Your task to perform on an android device: Open privacy settings Image 0: 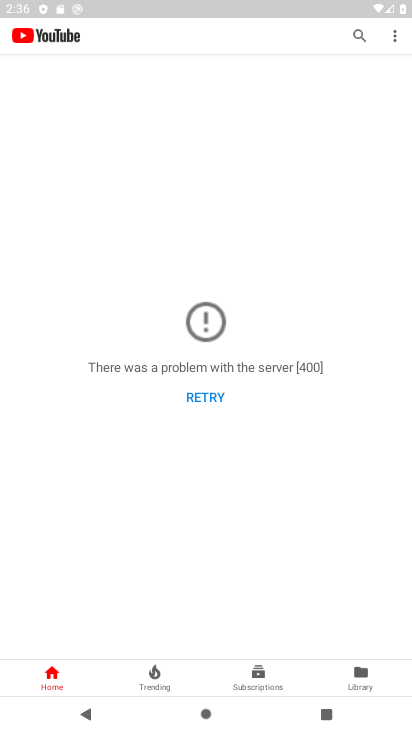
Step 0: press home button
Your task to perform on an android device: Open privacy settings Image 1: 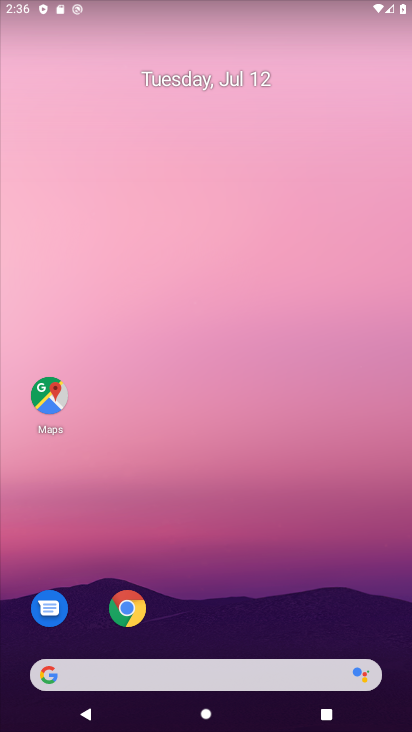
Step 1: drag from (312, 636) to (340, 128)
Your task to perform on an android device: Open privacy settings Image 2: 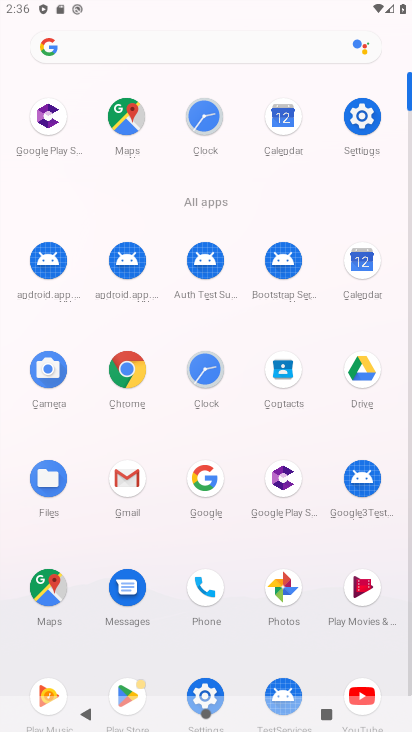
Step 2: click (367, 119)
Your task to perform on an android device: Open privacy settings Image 3: 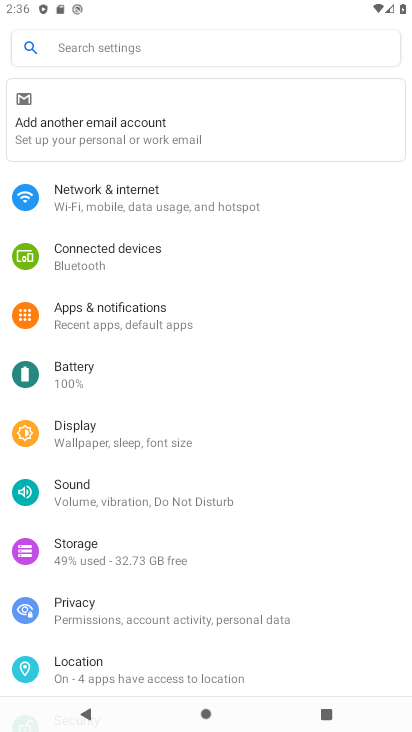
Step 3: click (115, 611)
Your task to perform on an android device: Open privacy settings Image 4: 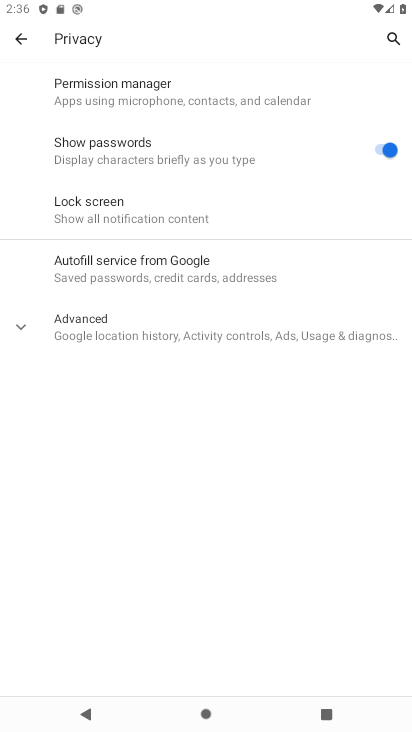
Step 4: task complete